Your task to perform on an android device: move an email to a new category in the gmail app Image 0: 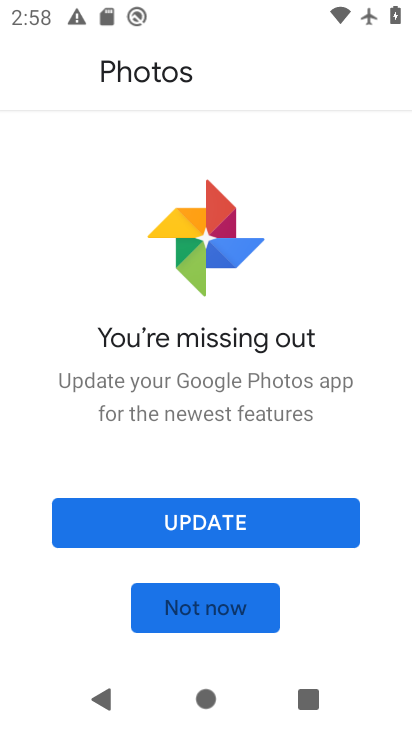
Step 0: press home button
Your task to perform on an android device: move an email to a new category in the gmail app Image 1: 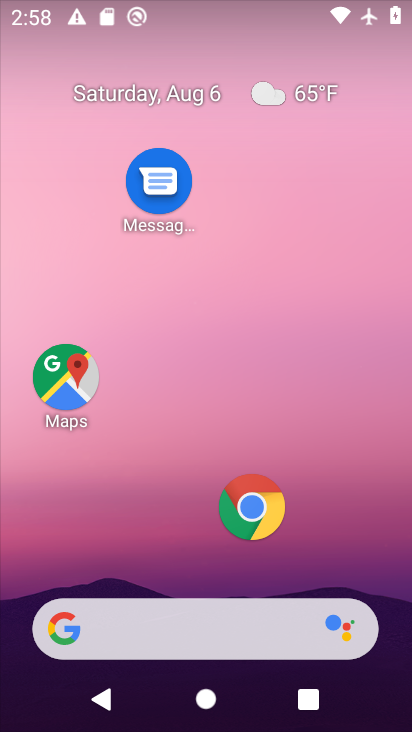
Step 1: drag from (159, 560) to (175, 121)
Your task to perform on an android device: move an email to a new category in the gmail app Image 2: 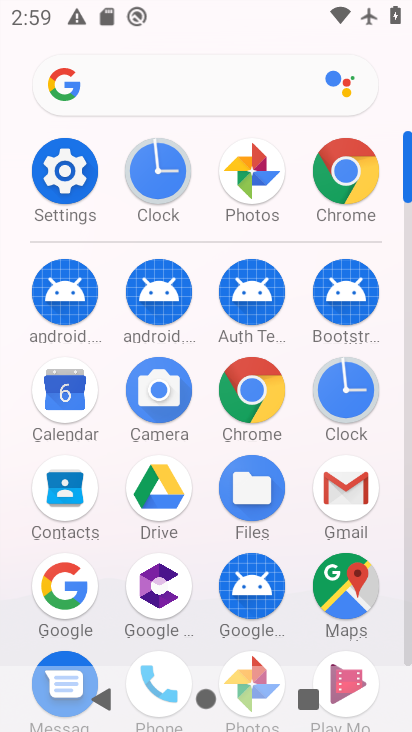
Step 2: click (355, 505)
Your task to perform on an android device: move an email to a new category in the gmail app Image 3: 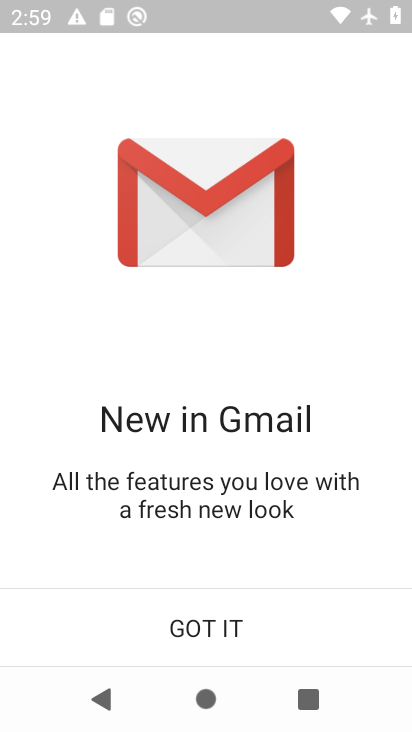
Step 3: click (232, 617)
Your task to perform on an android device: move an email to a new category in the gmail app Image 4: 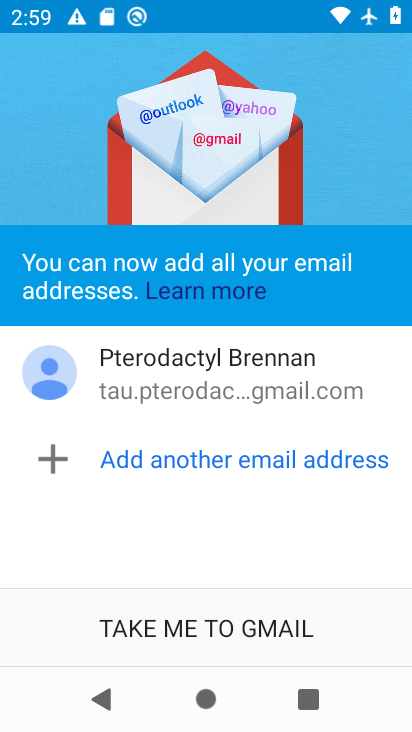
Step 4: click (234, 620)
Your task to perform on an android device: move an email to a new category in the gmail app Image 5: 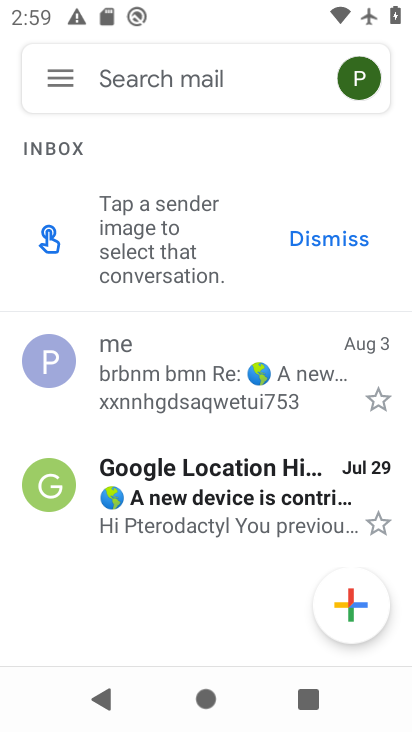
Step 5: click (54, 362)
Your task to perform on an android device: move an email to a new category in the gmail app Image 6: 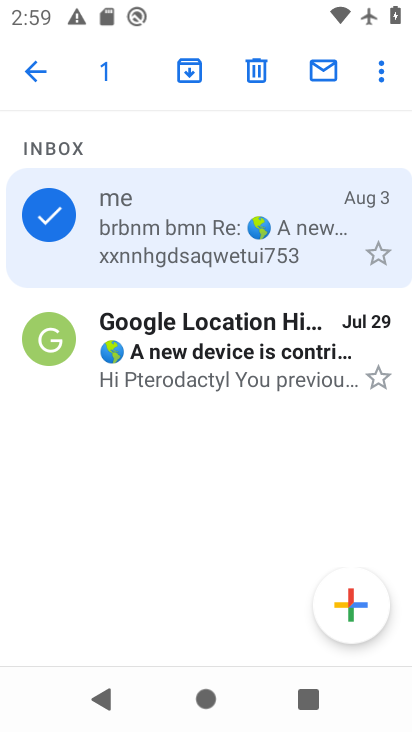
Step 6: click (375, 67)
Your task to perform on an android device: move an email to a new category in the gmail app Image 7: 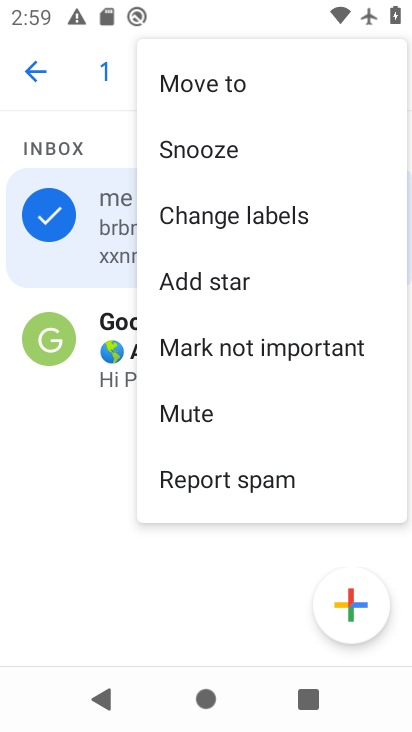
Step 7: click (259, 216)
Your task to perform on an android device: move an email to a new category in the gmail app Image 8: 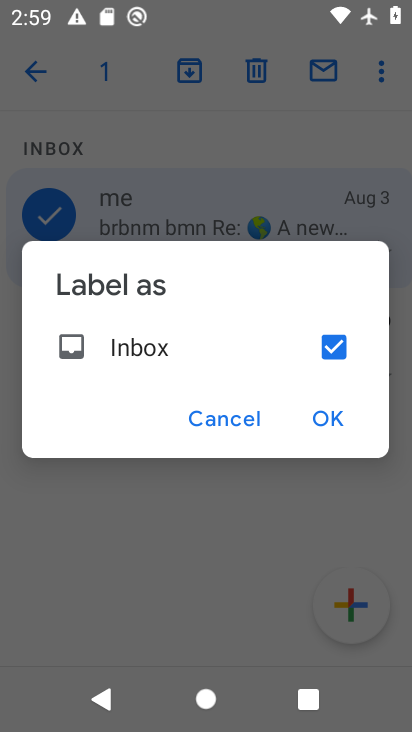
Step 8: click (323, 338)
Your task to perform on an android device: move an email to a new category in the gmail app Image 9: 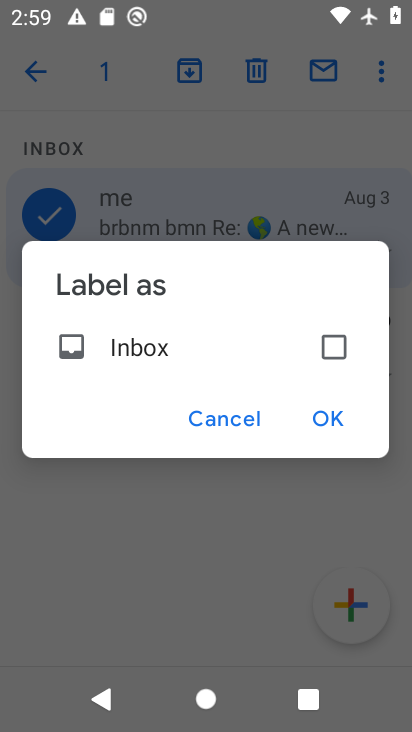
Step 9: click (334, 419)
Your task to perform on an android device: move an email to a new category in the gmail app Image 10: 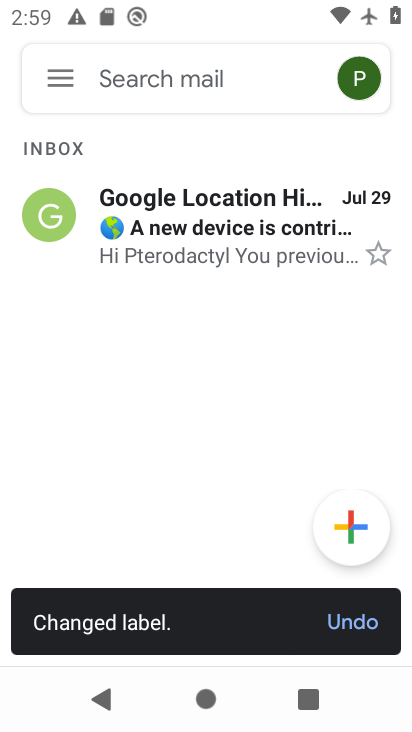
Step 10: task complete